Your task to perform on an android device: Open settings on Google Maps Image 0: 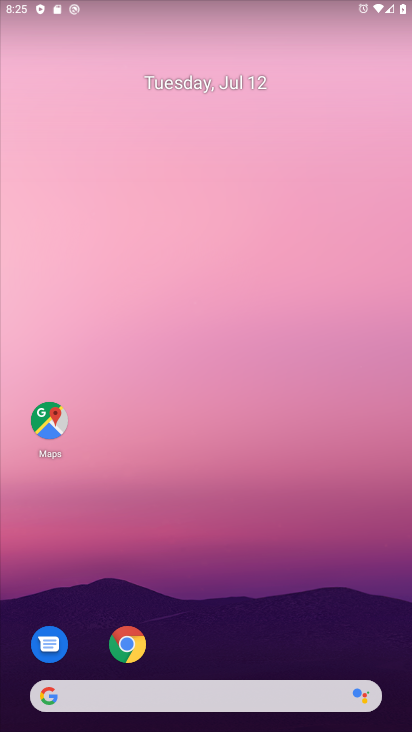
Step 0: click (183, 37)
Your task to perform on an android device: Open settings on Google Maps Image 1: 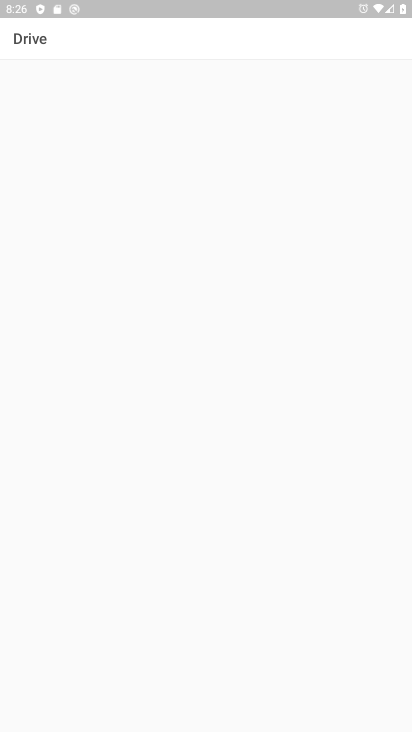
Step 1: press home button
Your task to perform on an android device: Open settings on Google Maps Image 2: 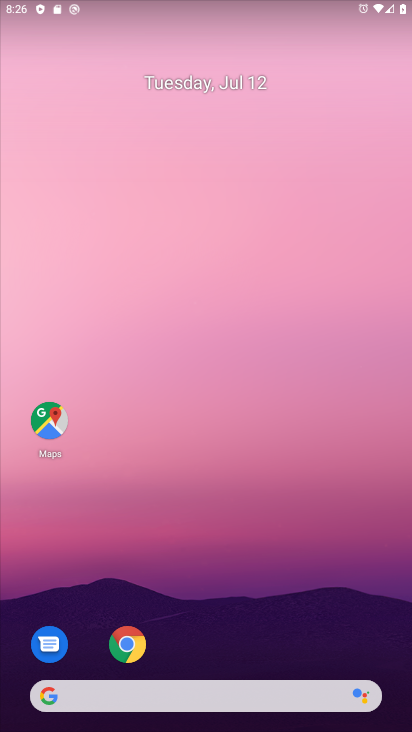
Step 2: click (49, 432)
Your task to perform on an android device: Open settings on Google Maps Image 3: 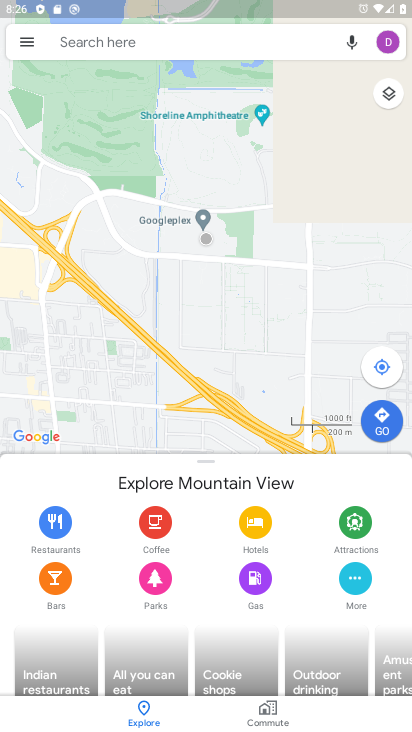
Step 3: click (26, 38)
Your task to perform on an android device: Open settings on Google Maps Image 4: 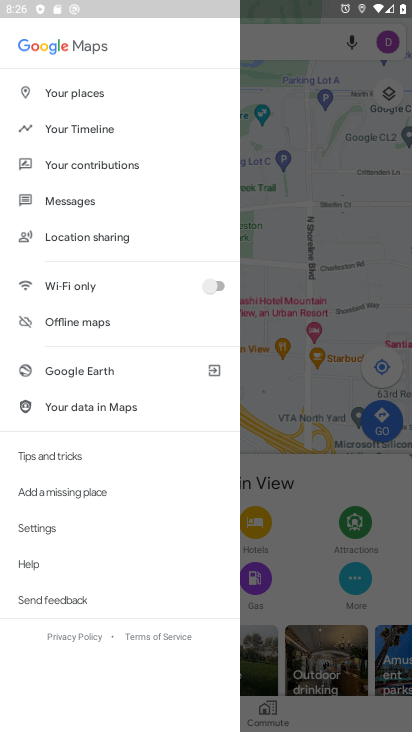
Step 4: click (33, 526)
Your task to perform on an android device: Open settings on Google Maps Image 5: 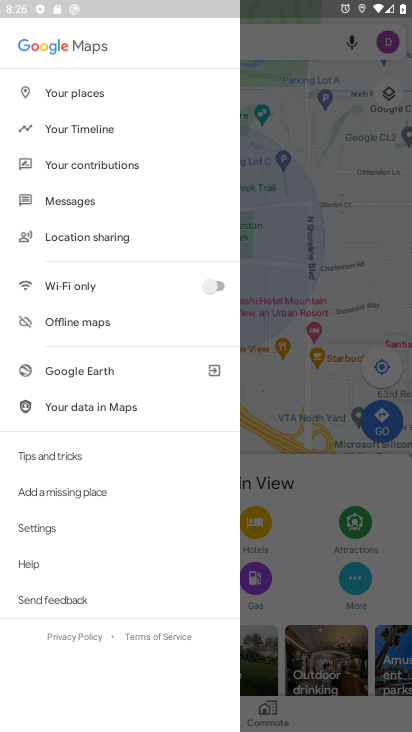
Step 5: click (43, 530)
Your task to perform on an android device: Open settings on Google Maps Image 6: 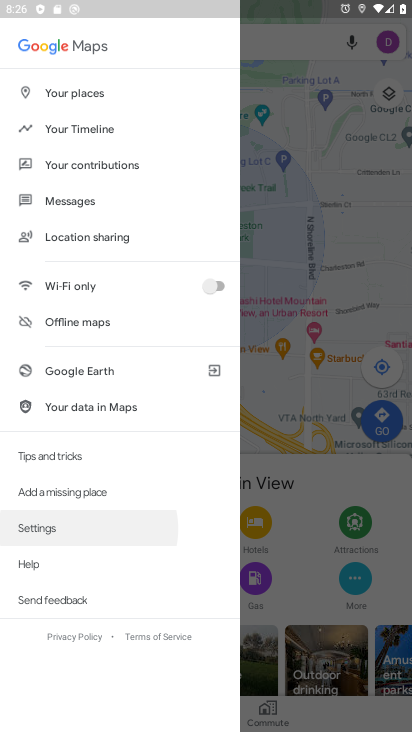
Step 6: click (42, 529)
Your task to perform on an android device: Open settings on Google Maps Image 7: 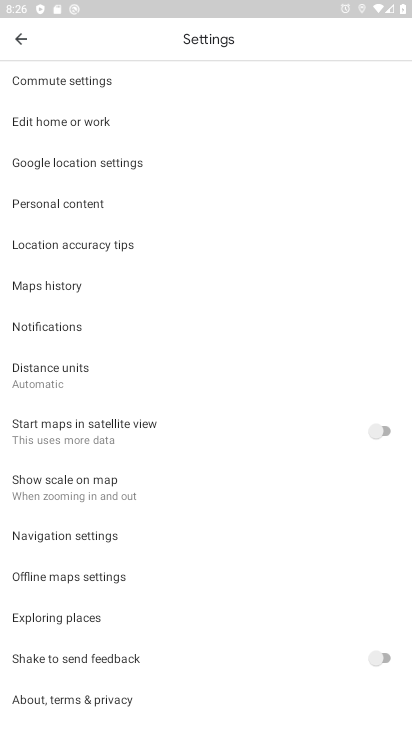
Step 7: task complete